Your task to perform on an android device: change notification settings in the gmail app Image 0: 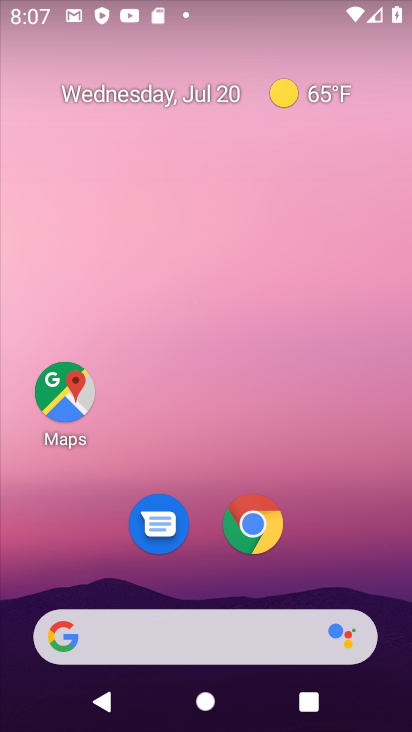
Step 0: click (333, 547)
Your task to perform on an android device: change notification settings in the gmail app Image 1: 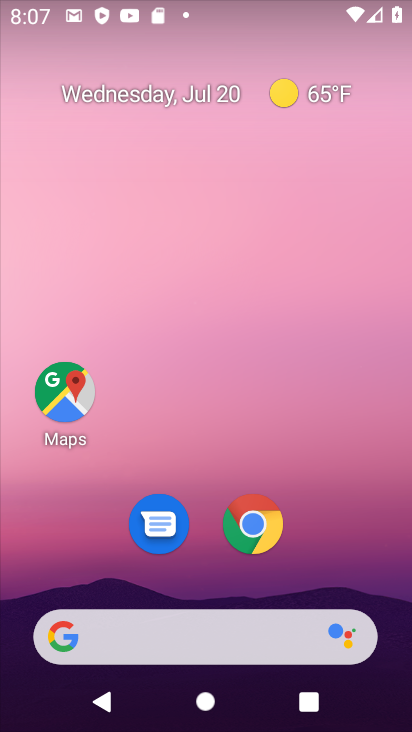
Step 1: drag from (333, 547) to (295, 51)
Your task to perform on an android device: change notification settings in the gmail app Image 2: 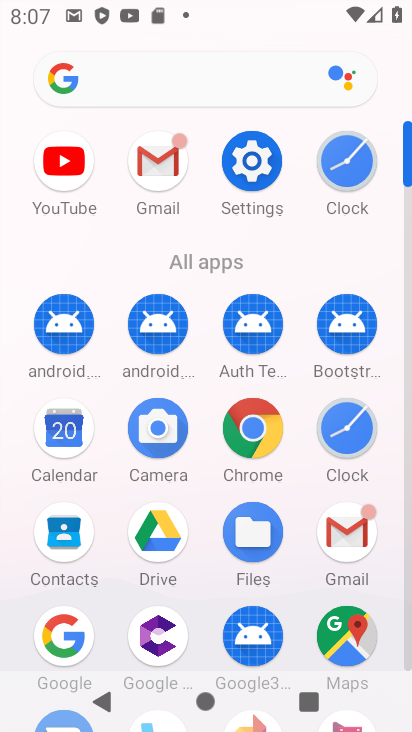
Step 2: click (170, 162)
Your task to perform on an android device: change notification settings in the gmail app Image 3: 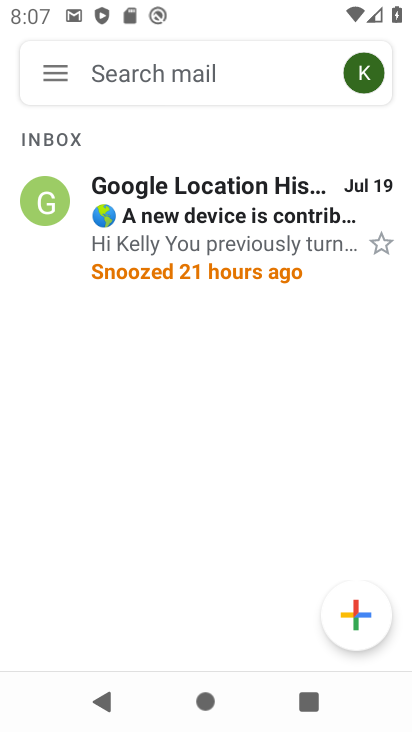
Step 3: click (54, 72)
Your task to perform on an android device: change notification settings in the gmail app Image 4: 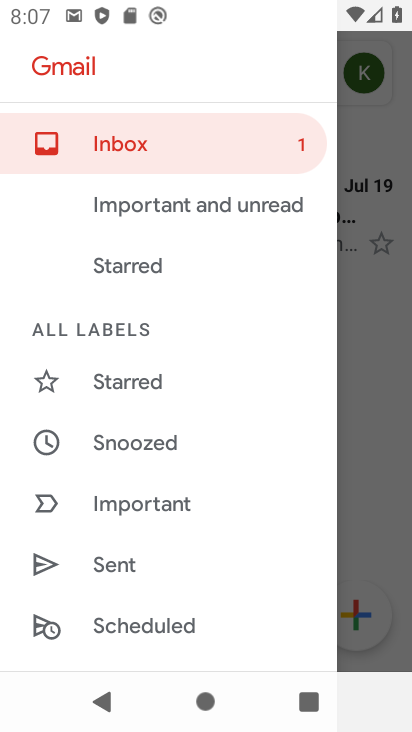
Step 4: drag from (239, 602) to (240, 15)
Your task to perform on an android device: change notification settings in the gmail app Image 5: 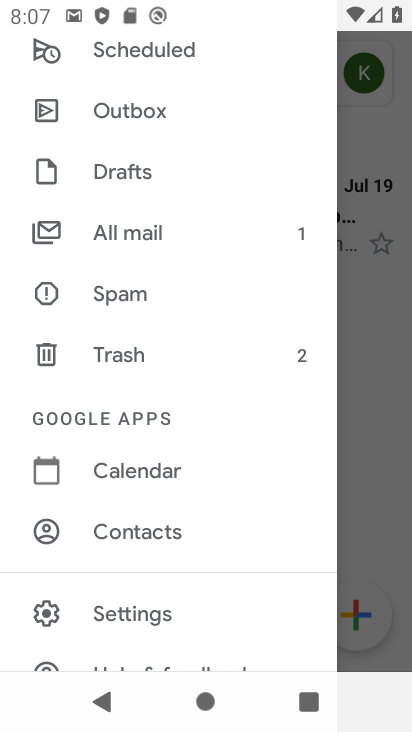
Step 5: click (153, 601)
Your task to perform on an android device: change notification settings in the gmail app Image 6: 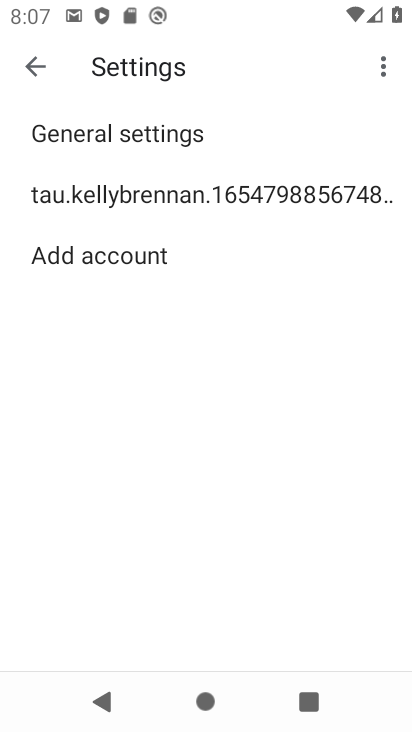
Step 6: click (273, 190)
Your task to perform on an android device: change notification settings in the gmail app Image 7: 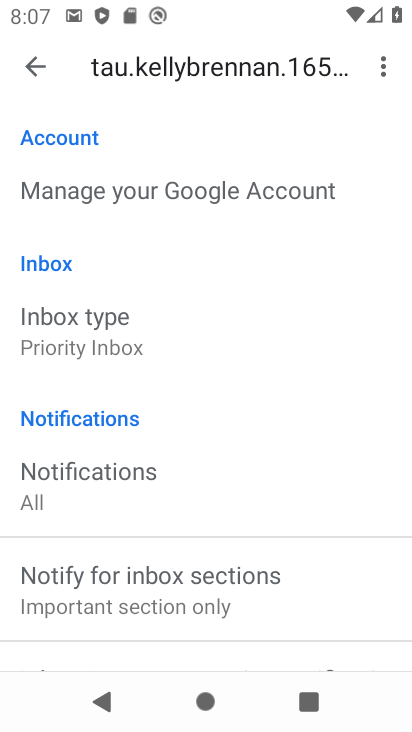
Step 7: drag from (254, 414) to (275, 80)
Your task to perform on an android device: change notification settings in the gmail app Image 8: 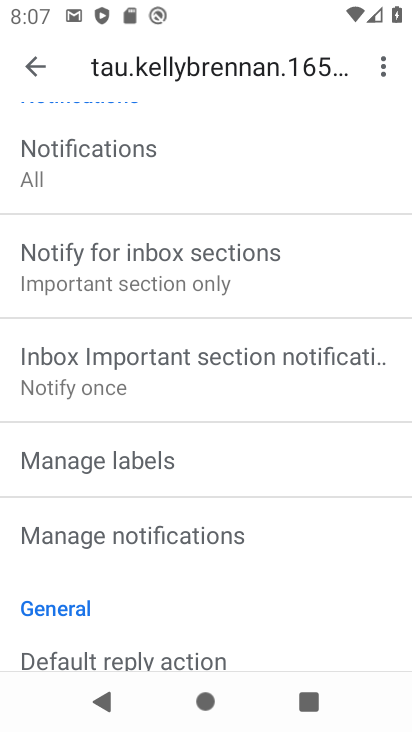
Step 8: click (182, 527)
Your task to perform on an android device: change notification settings in the gmail app Image 9: 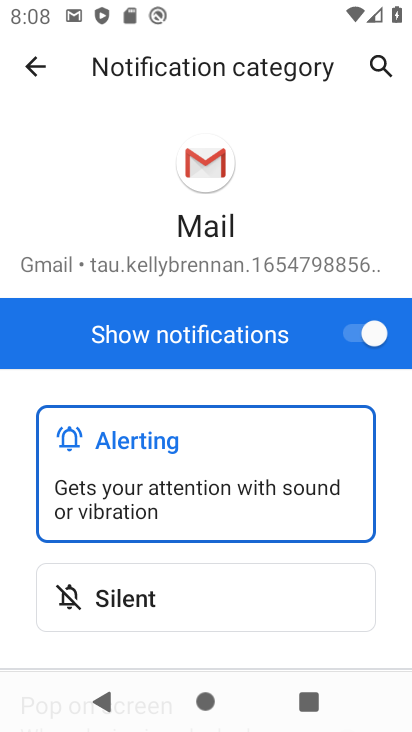
Step 9: click (363, 333)
Your task to perform on an android device: change notification settings in the gmail app Image 10: 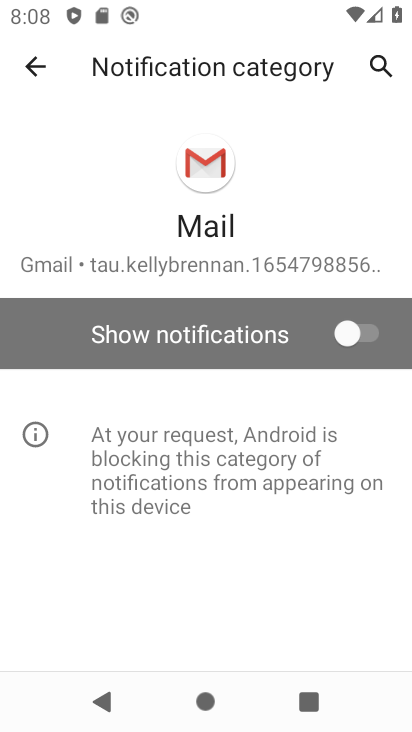
Step 10: task complete